Your task to perform on an android device: turn off location Image 0: 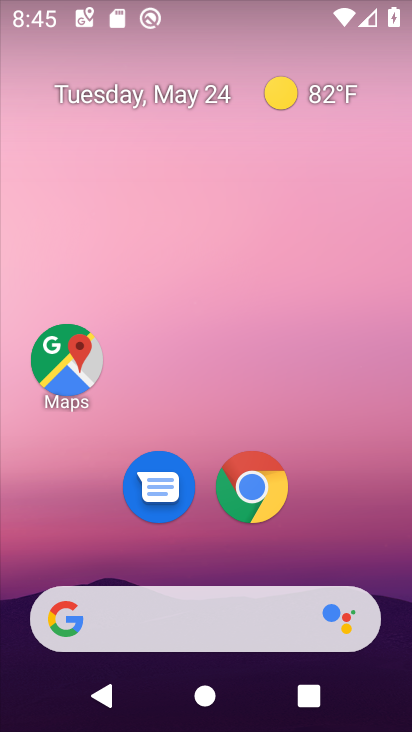
Step 0: drag from (346, 519) to (310, 136)
Your task to perform on an android device: turn off location Image 1: 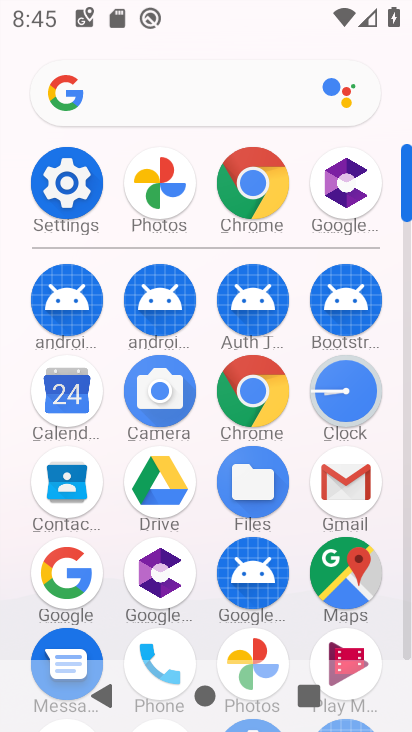
Step 1: click (60, 192)
Your task to perform on an android device: turn off location Image 2: 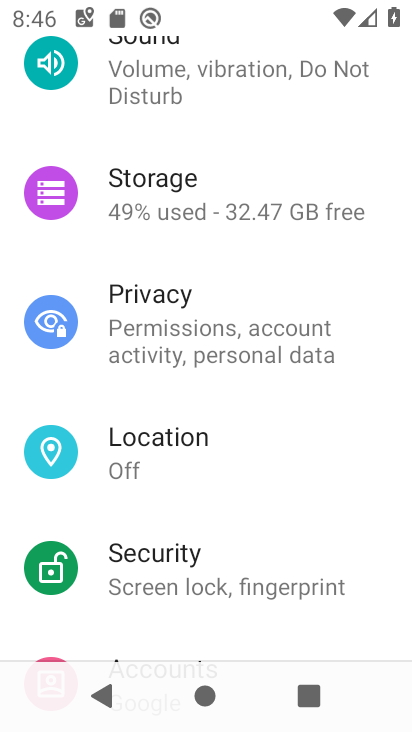
Step 2: drag from (217, 496) to (224, 227)
Your task to perform on an android device: turn off location Image 3: 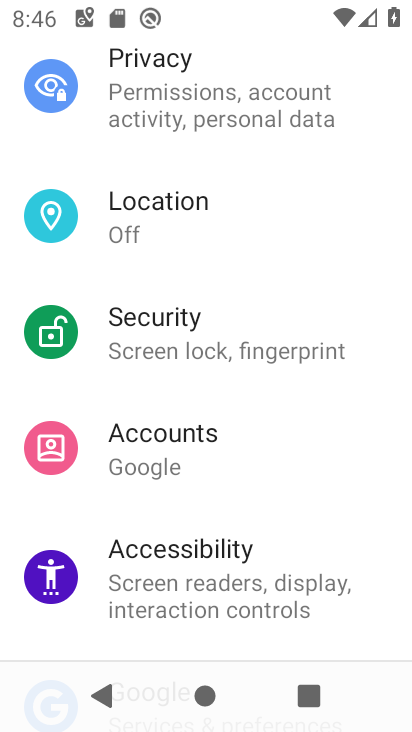
Step 3: click (196, 220)
Your task to perform on an android device: turn off location Image 4: 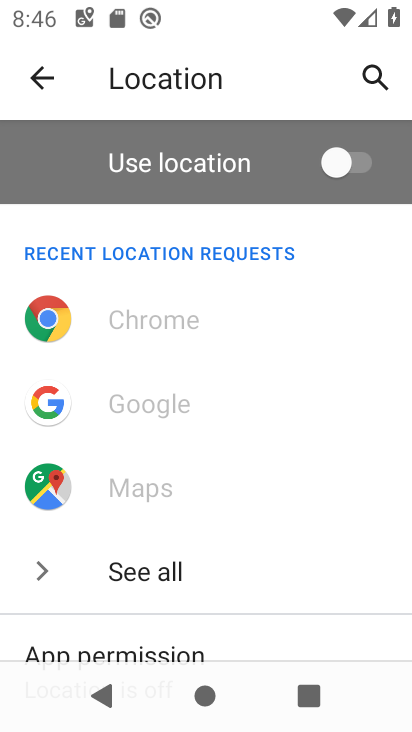
Step 4: task complete